Your task to perform on an android device: see sites visited before in the chrome app Image 0: 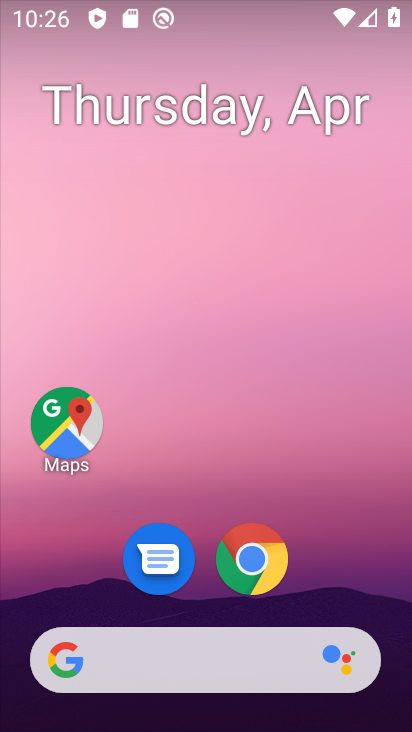
Step 0: drag from (263, 680) to (218, 174)
Your task to perform on an android device: see sites visited before in the chrome app Image 1: 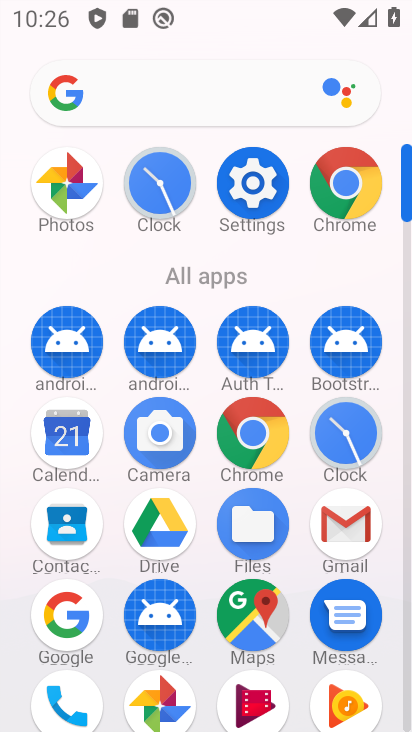
Step 1: drag from (319, 200) to (365, 180)
Your task to perform on an android device: see sites visited before in the chrome app Image 2: 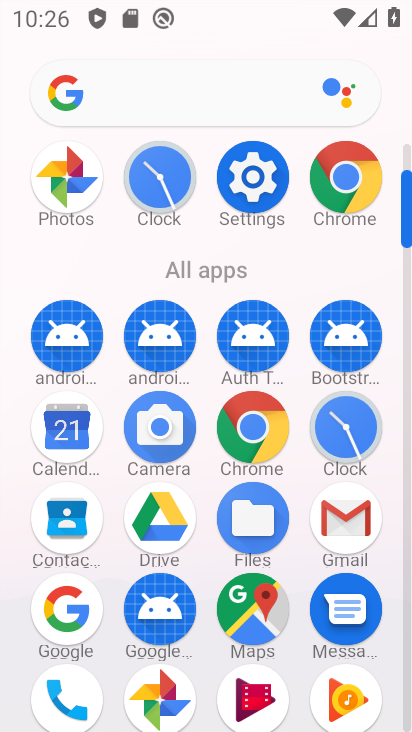
Step 2: click (363, 183)
Your task to perform on an android device: see sites visited before in the chrome app Image 3: 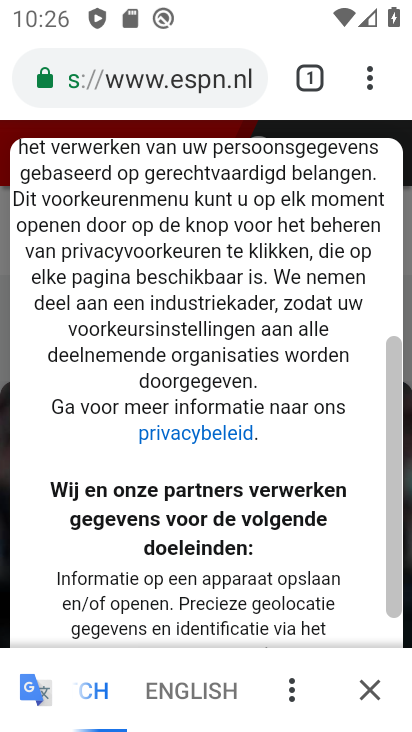
Step 3: click (371, 685)
Your task to perform on an android device: see sites visited before in the chrome app Image 4: 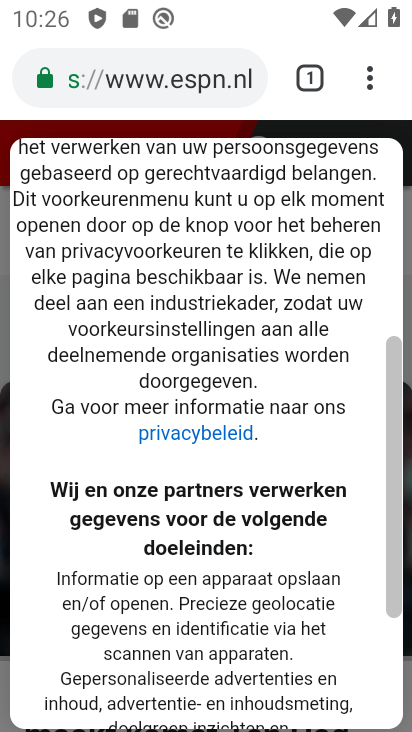
Step 4: click (312, 85)
Your task to perform on an android device: see sites visited before in the chrome app Image 5: 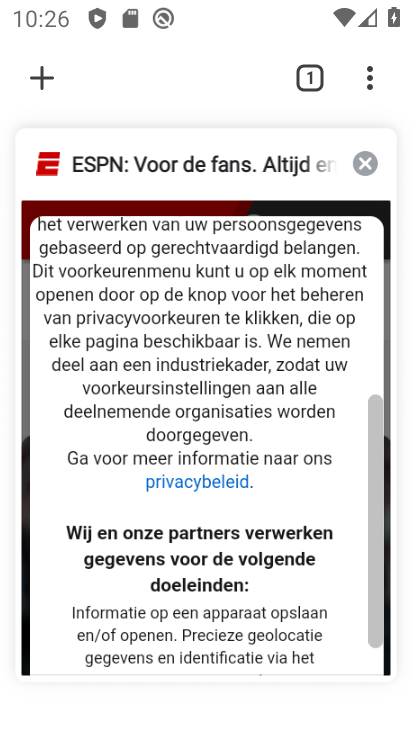
Step 5: click (361, 152)
Your task to perform on an android device: see sites visited before in the chrome app Image 6: 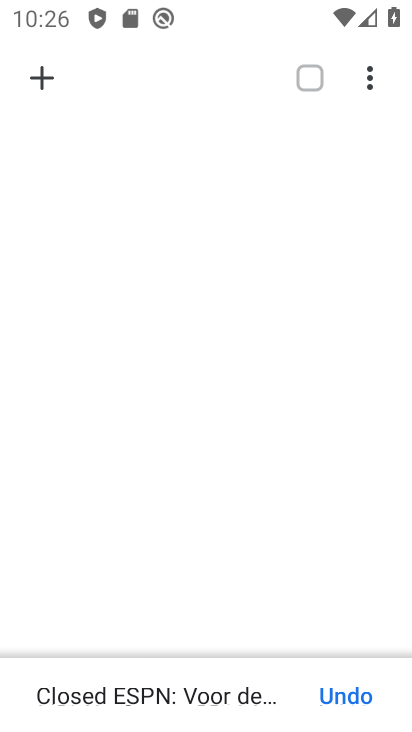
Step 6: click (47, 78)
Your task to perform on an android device: see sites visited before in the chrome app Image 7: 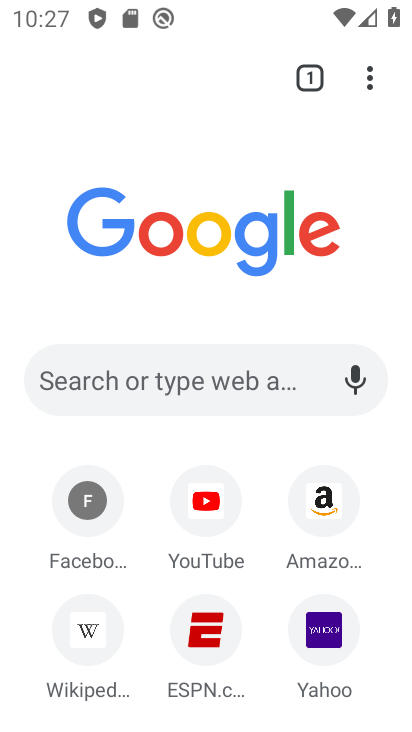
Step 7: click (364, 78)
Your task to perform on an android device: see sites visited before in the chrome app Image 8: 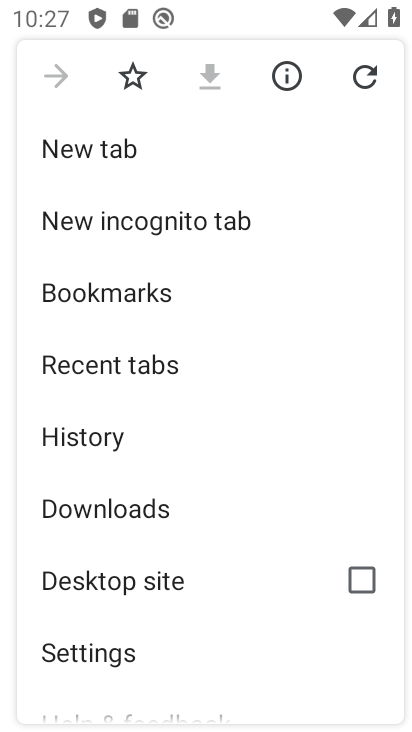
Step 8: click (76, 654)
Your task to perform on an android device: see sites visited before in the chrome app Image 9: 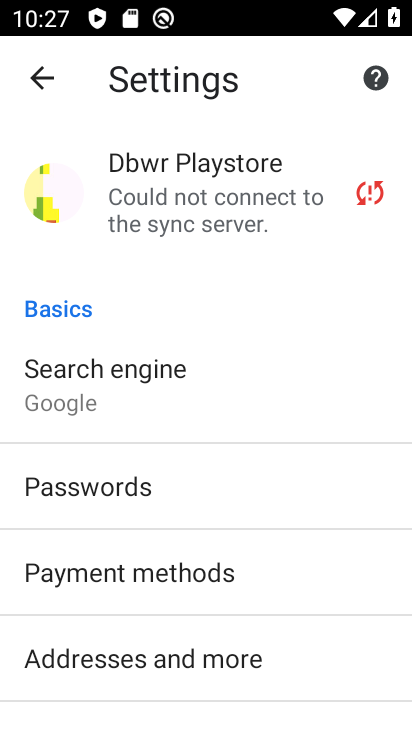
Step 9: drag from (118, 630) to (62, 295)
Your task to perform on an android device: see sites visited before in the chrome app Image 10: 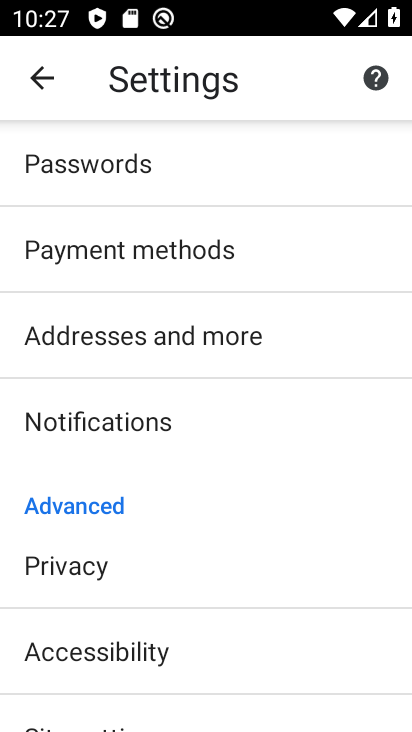
Step 10: drag from (118, 713) to (136, 635)
Your task to perform on an android device: see sites visited before in the chrome app Image 11: 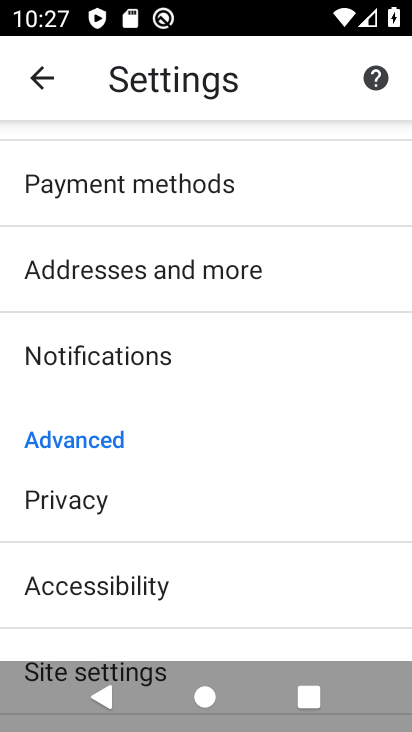
Step 11: drag from (134, 636) to (136, 596)
Your task to perform on an android device: see sites visited before in the chrome app Image 12: 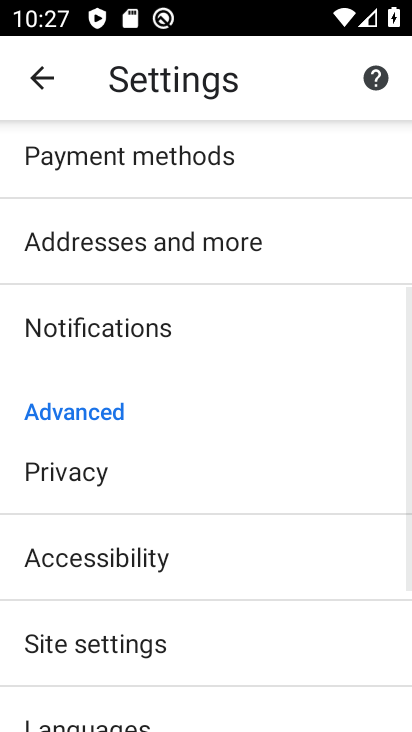
Step 12: click (105, 633)
Your task to perform on an android device: see sites visited before in the chrome app Image 13: 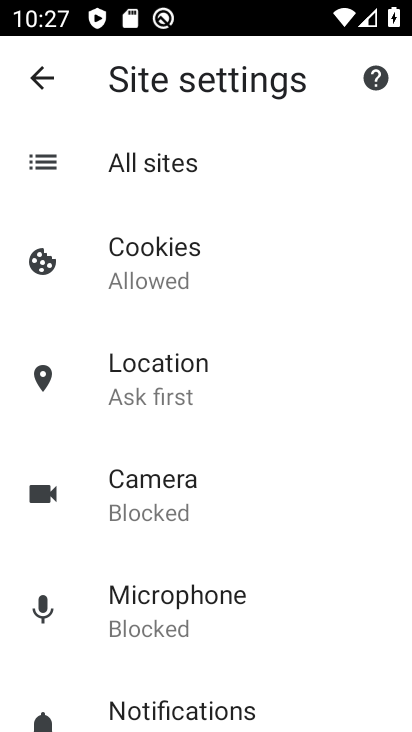
Step 13: click (118, 661)
Your task to perform on an android device: see sites visited before in the chrome app Image 14: 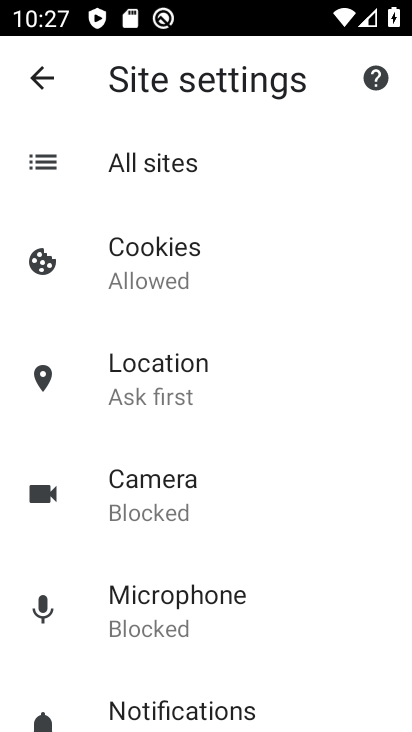
Step 14: click (144, 159)
Your task to perform on an android device: see sites visited before in the chrome app Image 15: 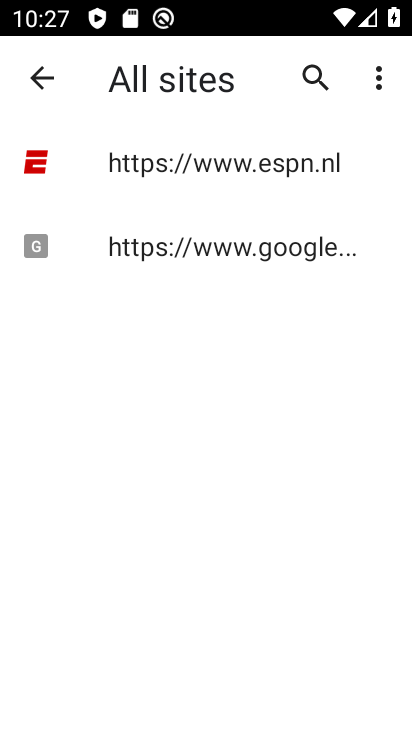
Step 15: task complete